Your task to perform on an android device: delete the emails in spam in the gmail app Image 0: 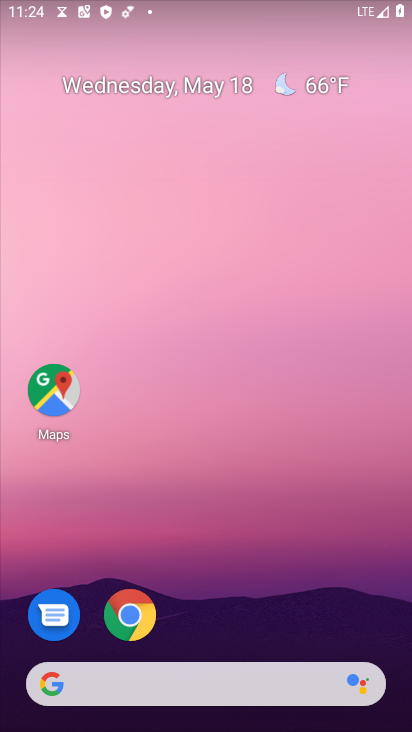
Step 0: drag from (298, 558) to (239, 81)
Your task to perform on an android device: delete the emails in spam in the gmail app Image 1: 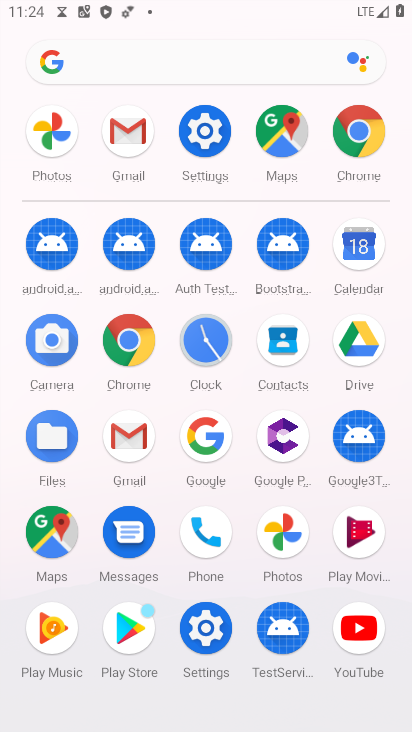
Step 1: drag from (8, 583) to (1, 263)
Your task to perform on an android device: delete the emails in spam in the gmail app Image 2: 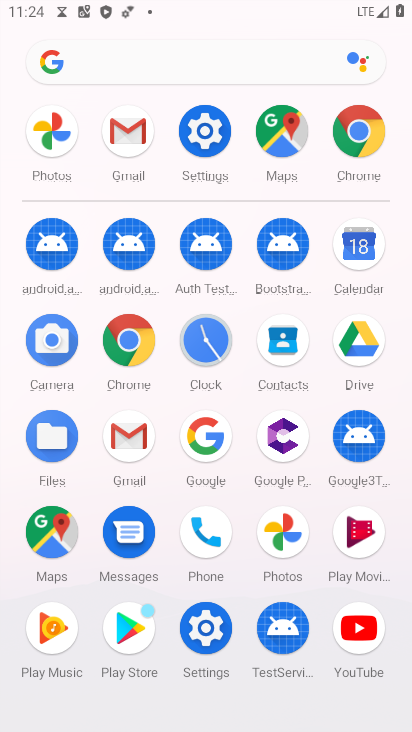
Step 2: click (127, 432)
Your task to perform on an android device: delete the emails in spam in the gmail app Image 3: 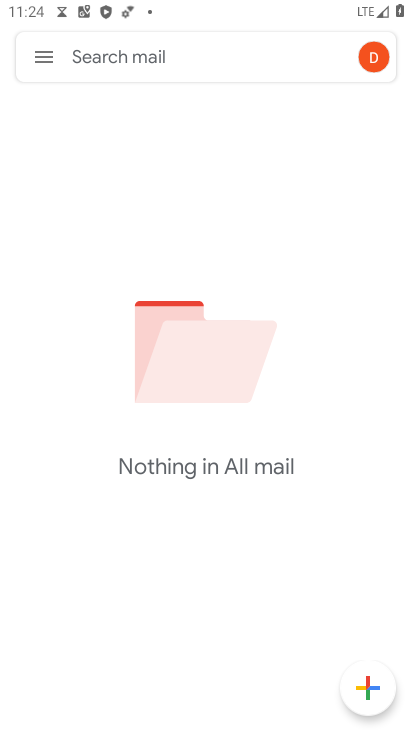
Step 3: click (38, 53)
Your task to perform on an android device: delete the emails in spam in the gmail app Image 4: 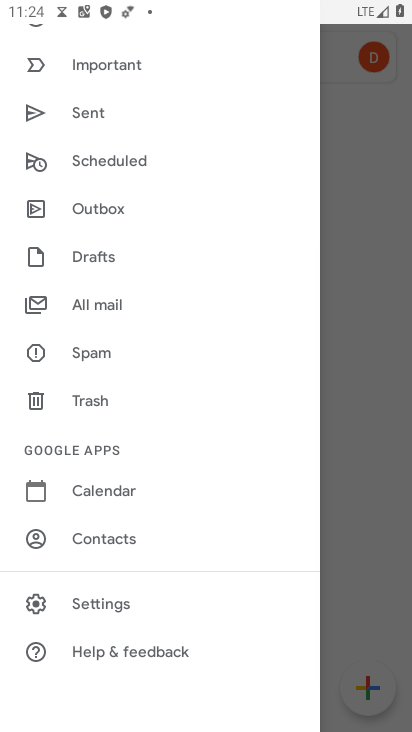
Step 4: drag from (213, 580) to (219, 167)
Your task to perform on an android device: delete the emails in spam in the gmail app Image 5: 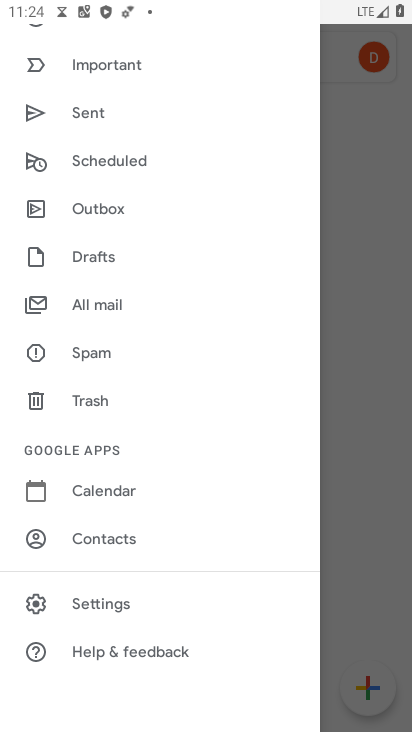
Step 5: click (109, 352)
Your task to perform on an android device: delete the emails in spam in the gmail app Image 6: 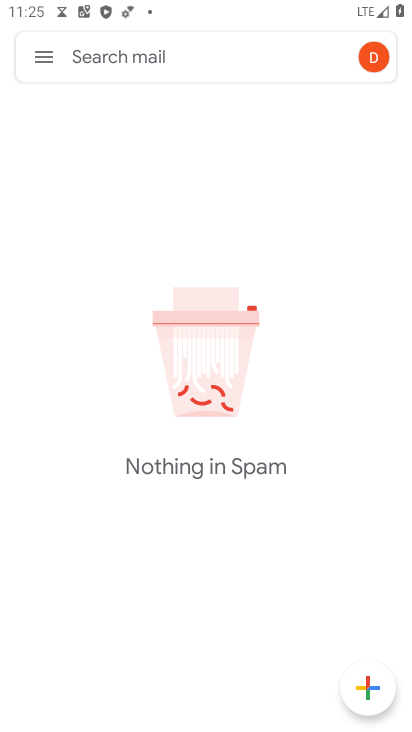
Step 6: task complete